Your task to perform on an android device: snooze an email in the gmail app Image 0: 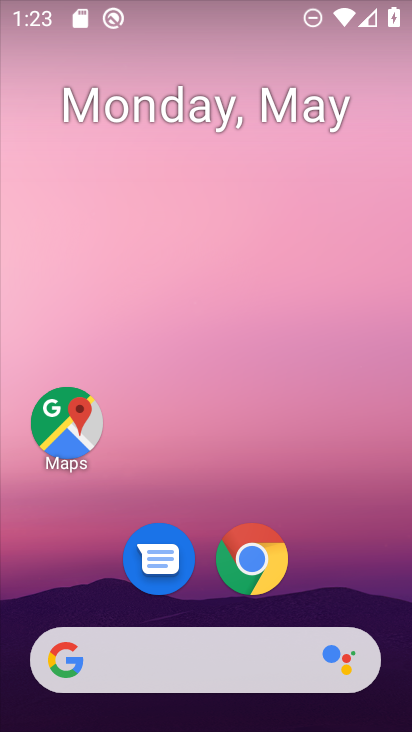
Step 0: drag from (315, 488) to (322, 59)
Your task to perform on an android device: snooze an email in the gmail app Image 1: 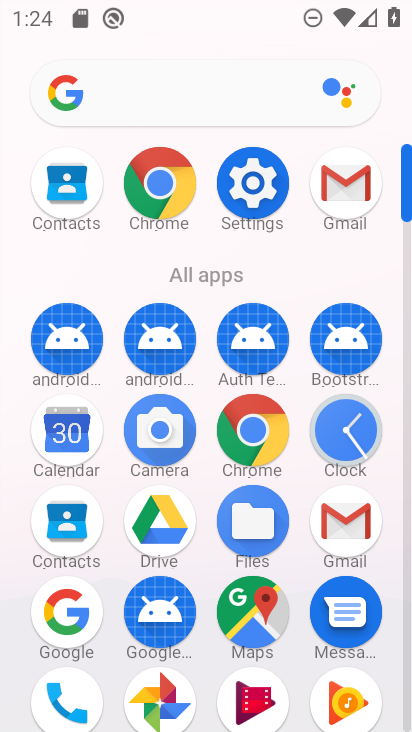
Step 1: click (346, 163)
Your task to perform on an android device: snooze an email in the gmail app Image 2: 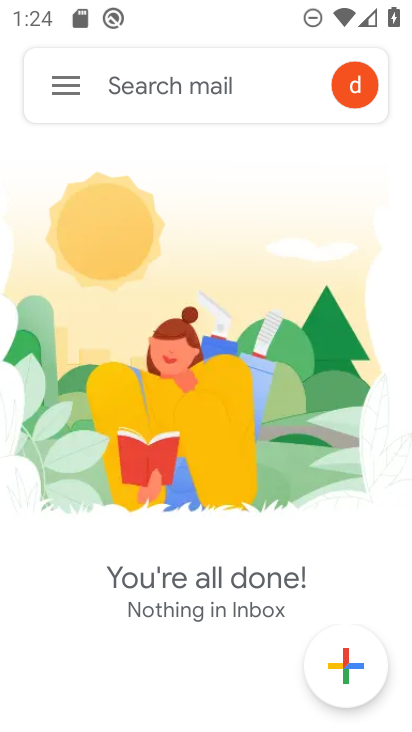
Step 2: click (55, 86)
Your task to perform on an android device: snooze an email in the gmail app Image 3: 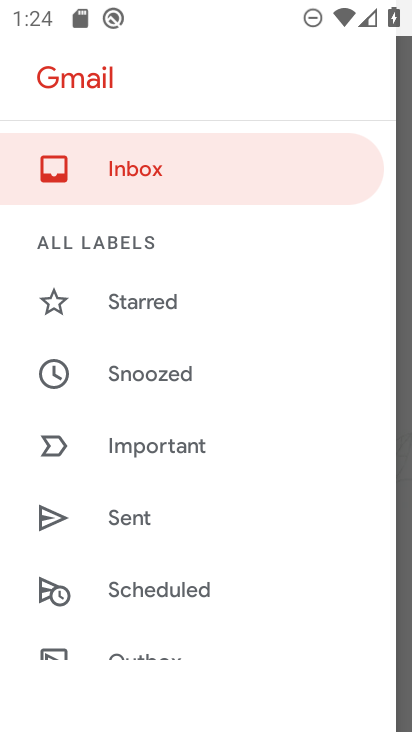
Step 3: drag from (173, 623) to (268, 247)
Your task to perform on an android device: snooze an email in the gmail app Image 4: 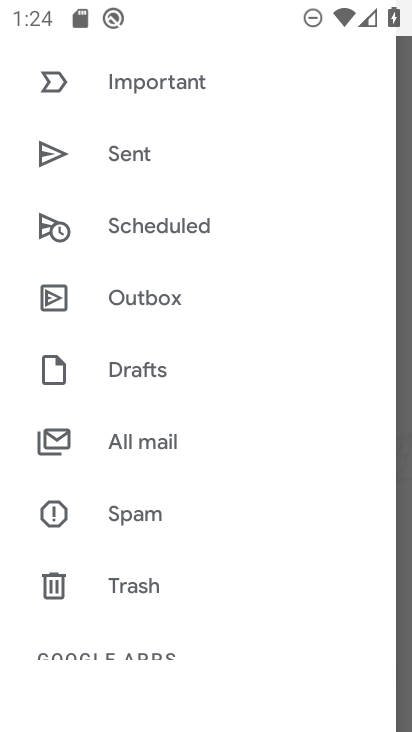
Step 4: click (190, 438)
Your task to perform on an android device: snooze an email in the gmail app Image 5: 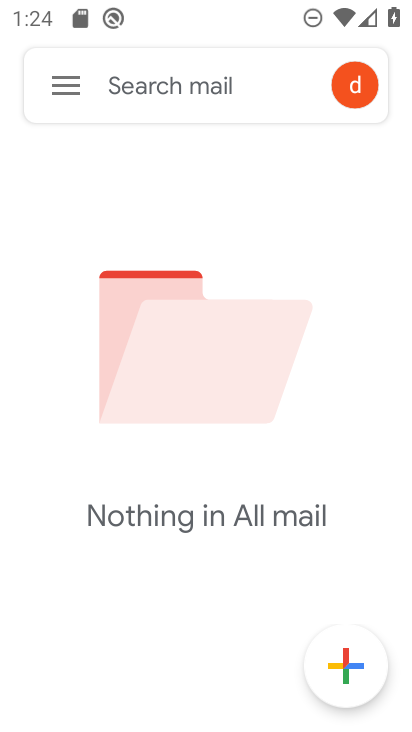
Step 5: task complete